Your task to perform on an android device: Go to Wikipedia Image 0: 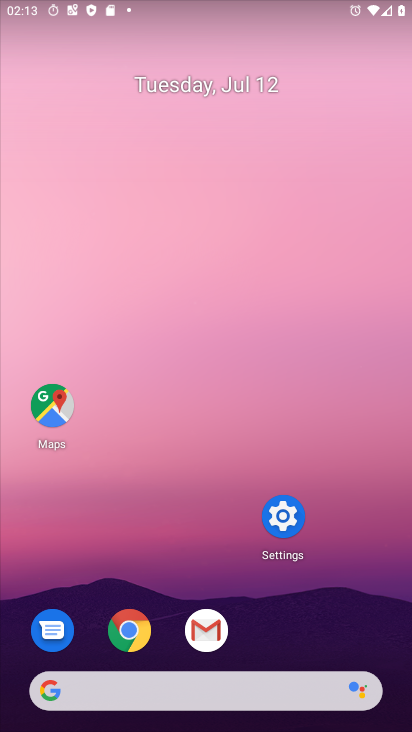
Step 0: click (122, 630)
Your task to perform on an android device: Go to Wikipedia Image 1: 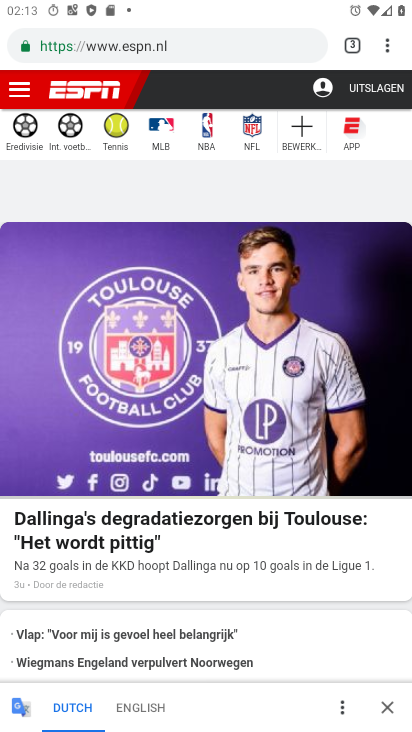
Step 1: click (376, 53)
Your task to perform on an android device: Go to Wikipedia Image 2: 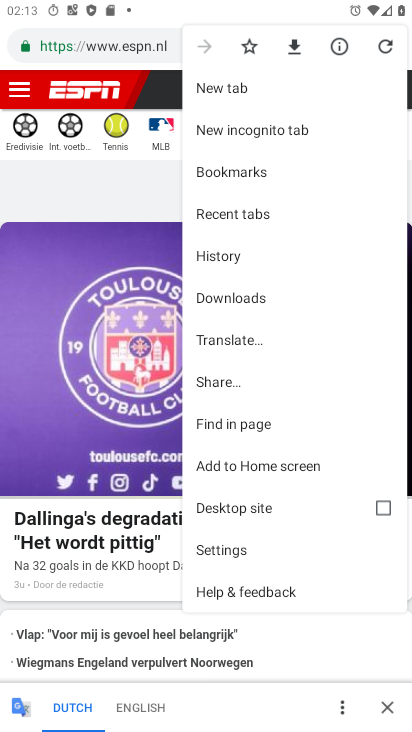
Step 2: click (236, 85)
Your task to perform on an android device: Go to Wikipedia Image 3: 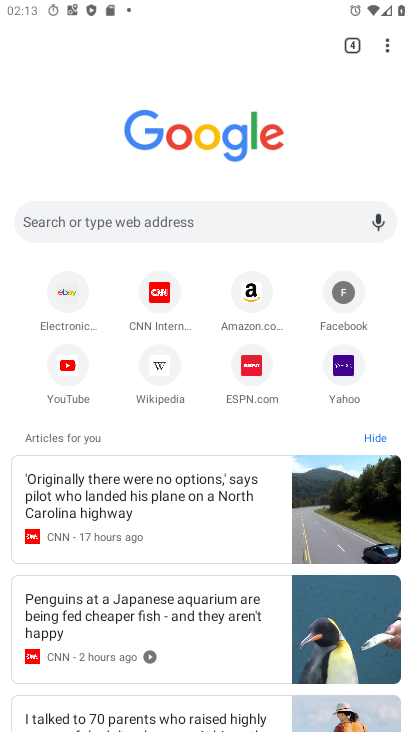
Step 3: click (156, 365)
Your task to perform on an android device: Go to Wikipedia Image 4: 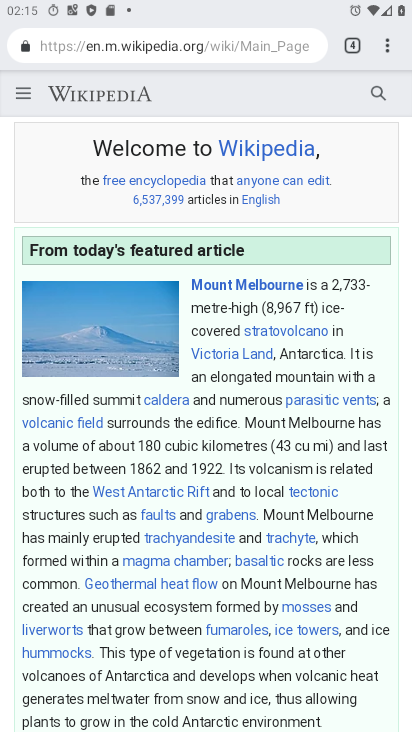
Step 4: task complete